Your task to perform on an android device: set an alarm Image 0: 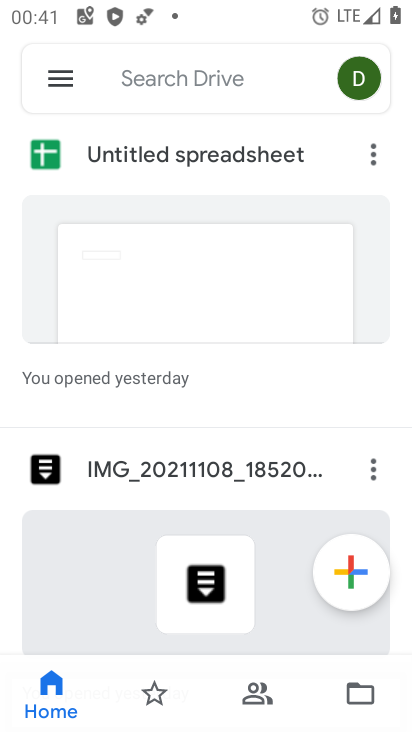
Step 0: press home button
Your task to perform on an android device: set an alarm Image 1: 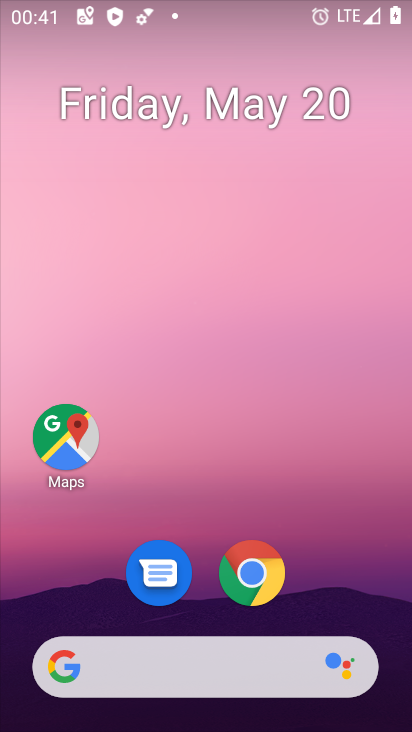
Step 1: drag from (212, 608) to (214, 210)
Your task to perform on an android device: set an alarm Image 2: 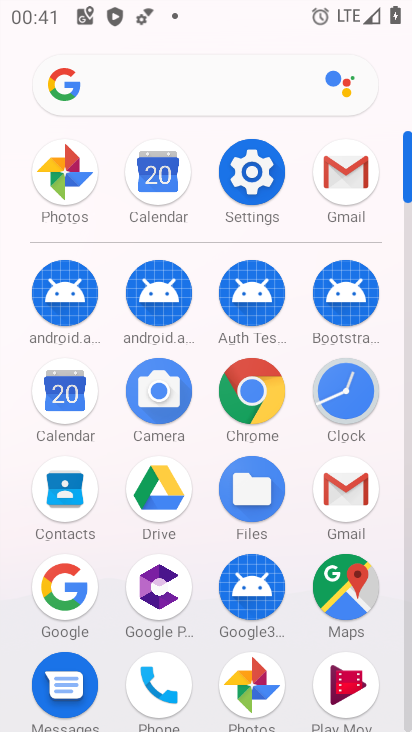
Step 2: click (323, 408)
Your task to perform on an android device: set an alarm Image 3: 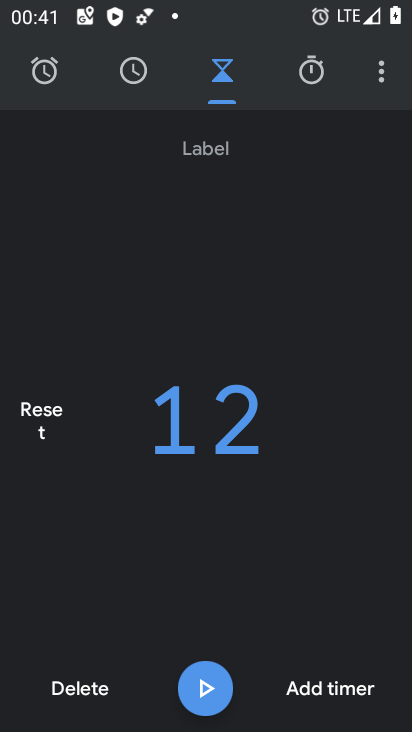
Step 3: click (33, 68)
Your task to perform on an android device: set an alarm Image 4: 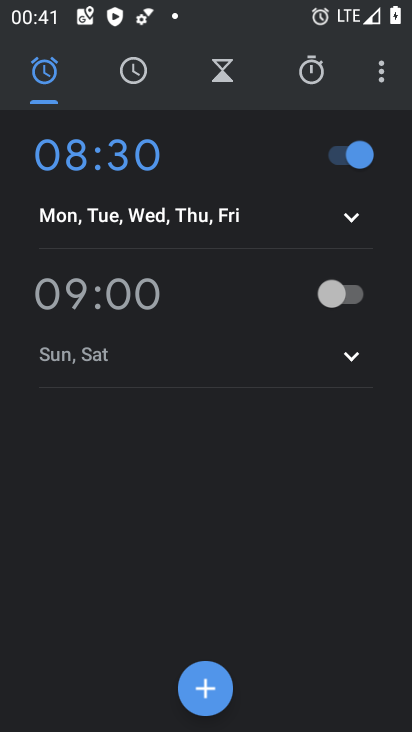
Step 4: click (355, 304)
Your task to perform on an android device: set an alarm Image 5: 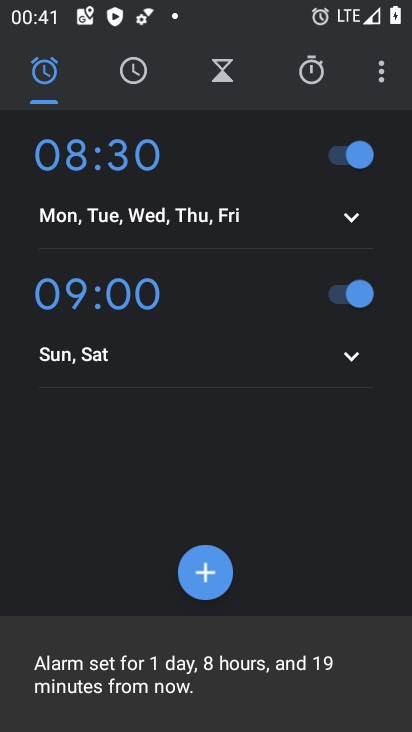
Step 5: task complete